Your task to perform on an android device: open device folders in google photos Image 0: 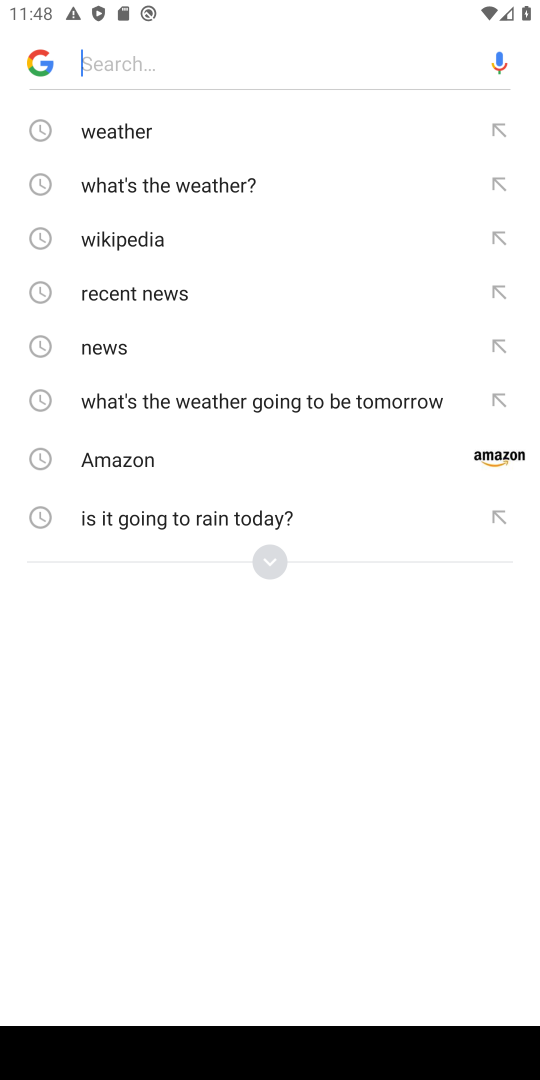
Step 0: press back button
Your task to perform on an android device: open device folders in google photos Image 1: 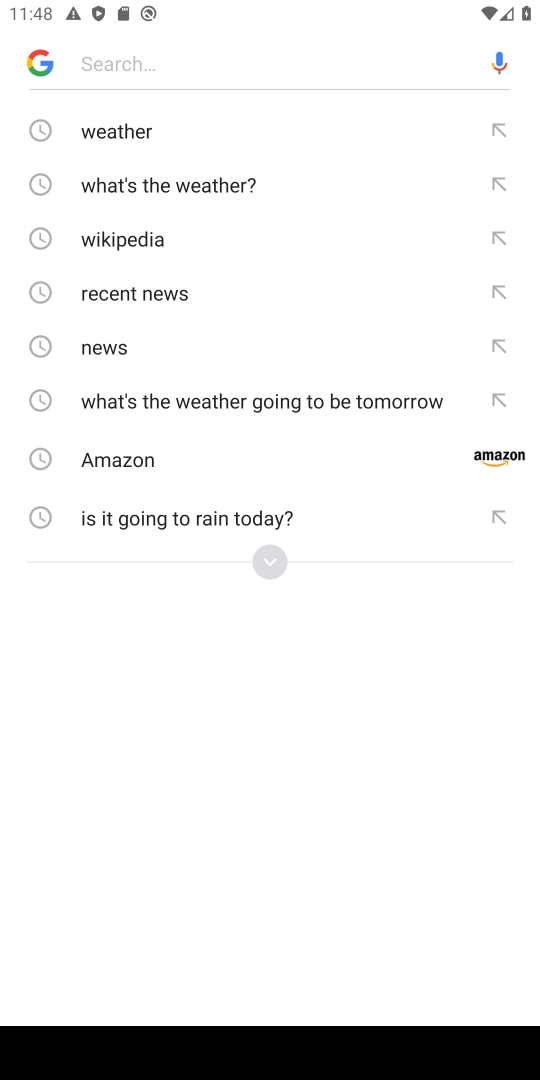
Step 1: press back button
Your task to perform on an android device: open device folders in google photos Image 2: 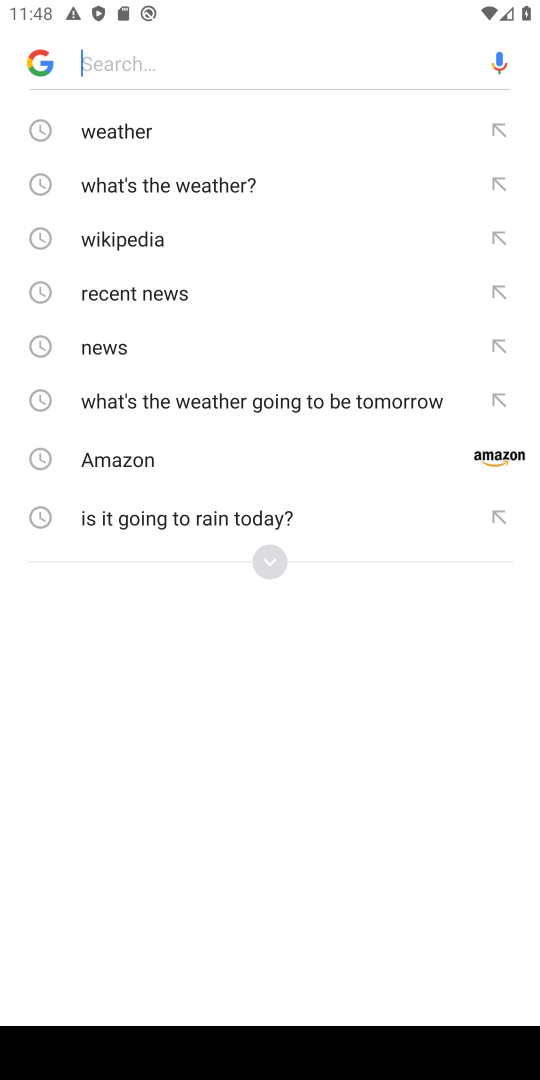
Step 2: press home button
Your task to perform on an android device: open device folders in google photos Image 3: 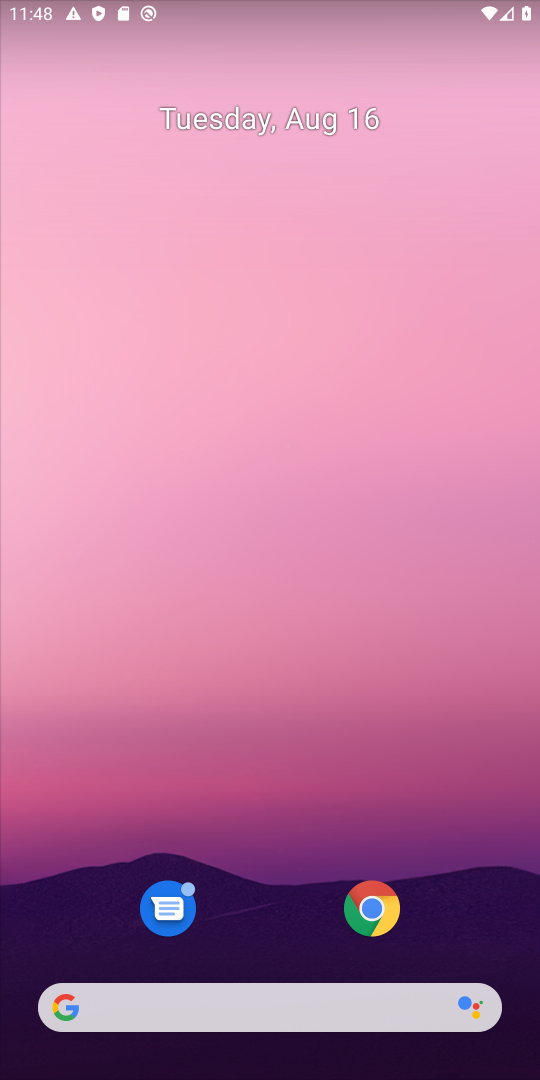
Step 3: press home button
Your task to perform on an android device: open device folders in google photos Image 4: 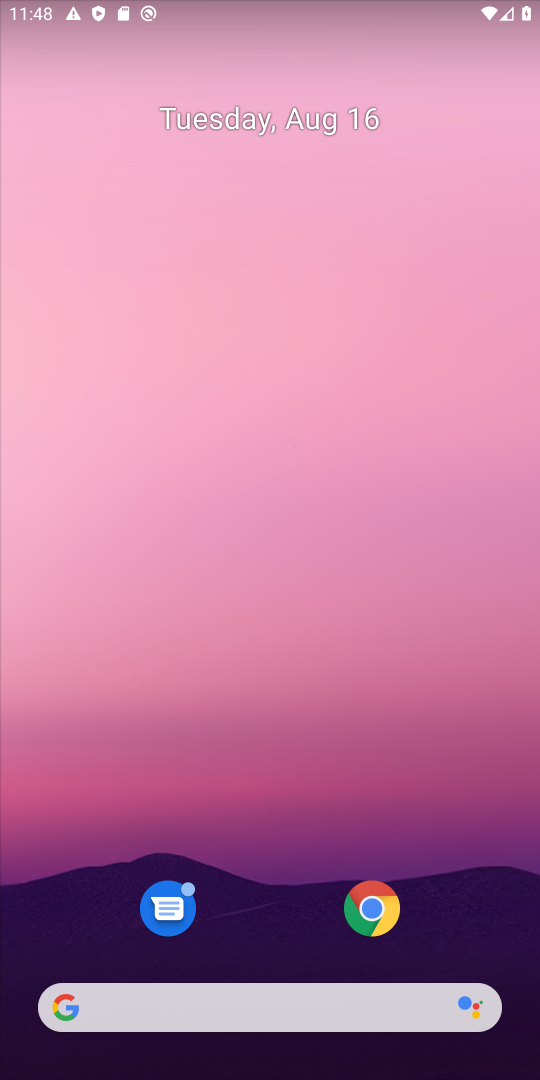
Step 4: click (213, 233)
Your task to perform on an android device: open device folders in google photos Image 5: 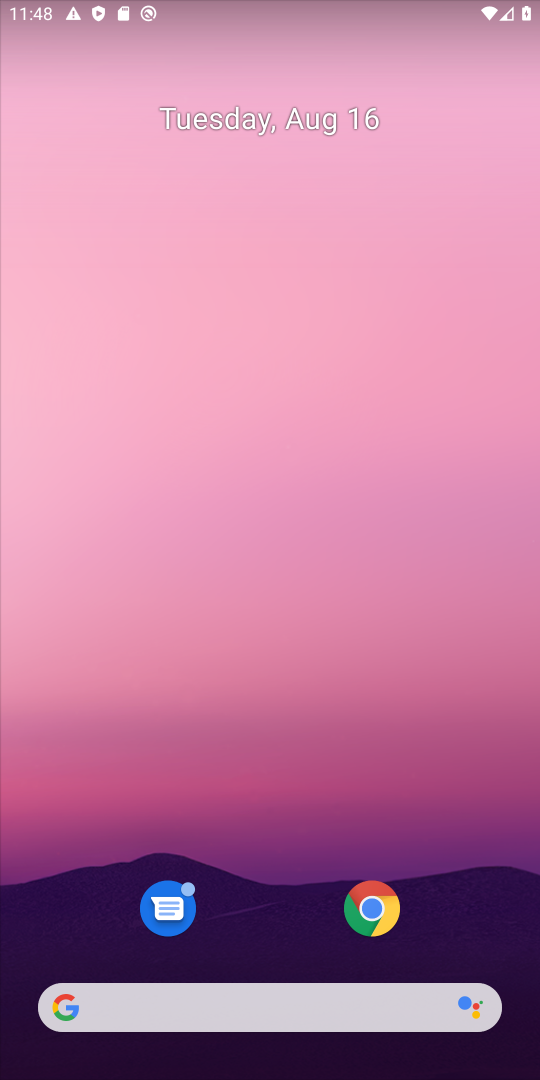
Step 5: drag from (261, 901) to (275, 363)
Your task to perform on an android device: open device folders in google photos Image 6: 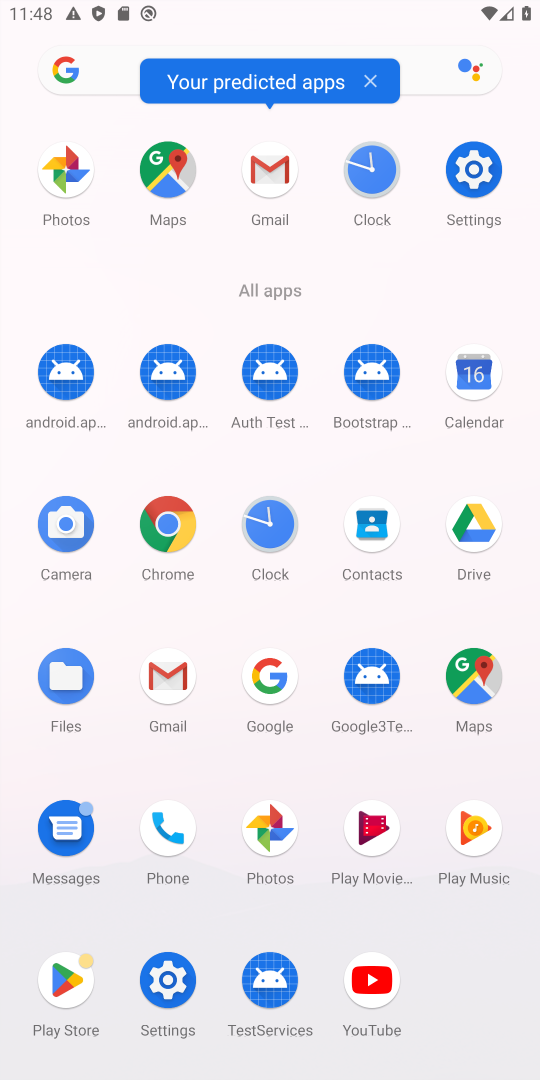
Step 6: click (54, 204)
Your task to perform on an android device: open device folders in google photos Image 7: 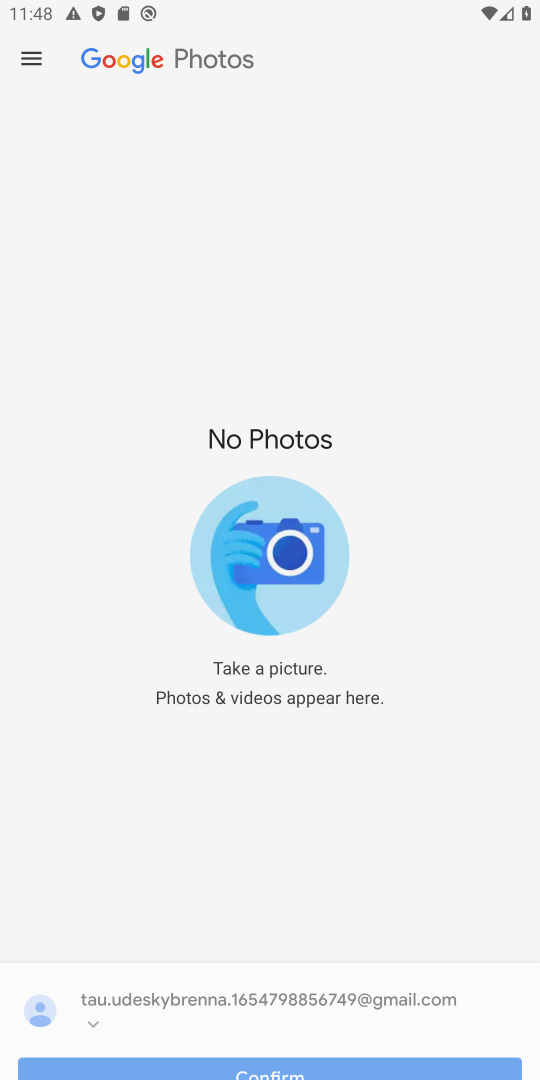
Step 7: click (35, 63)
Your task to perform on an android device: open device folders in google photos Image 8: 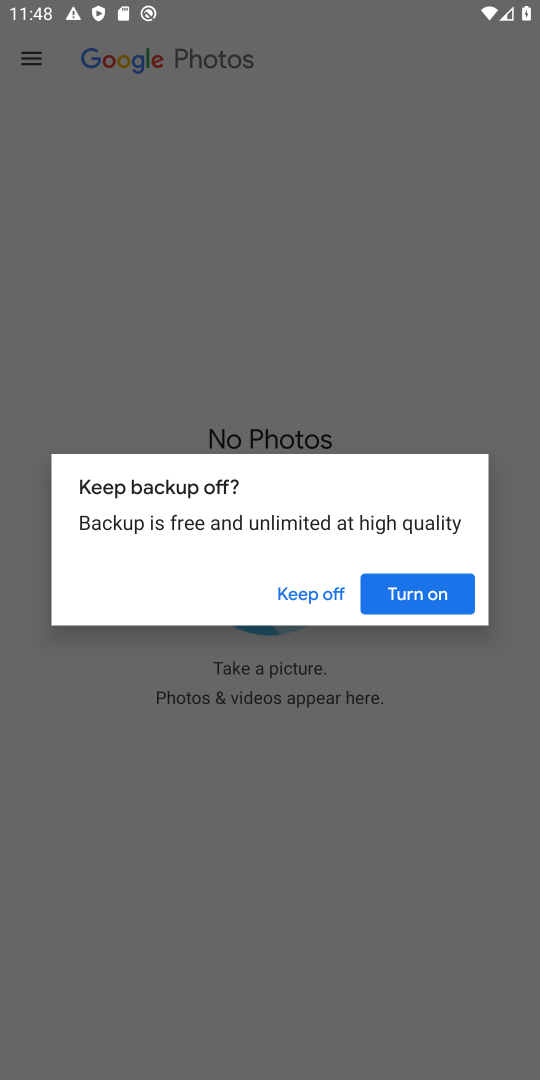
Step 8: click (297, 597)
Your task to perform on an android device: open device folders in google photos Image 9: 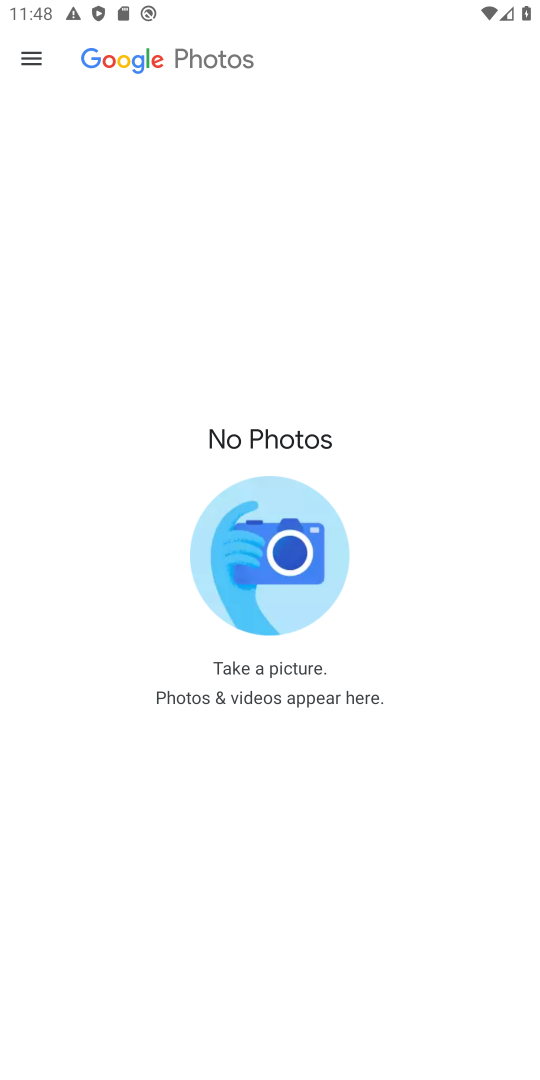
Step 9: click (27, 67)
Your task to perform on an android device: open device folders in google photos Image 10: 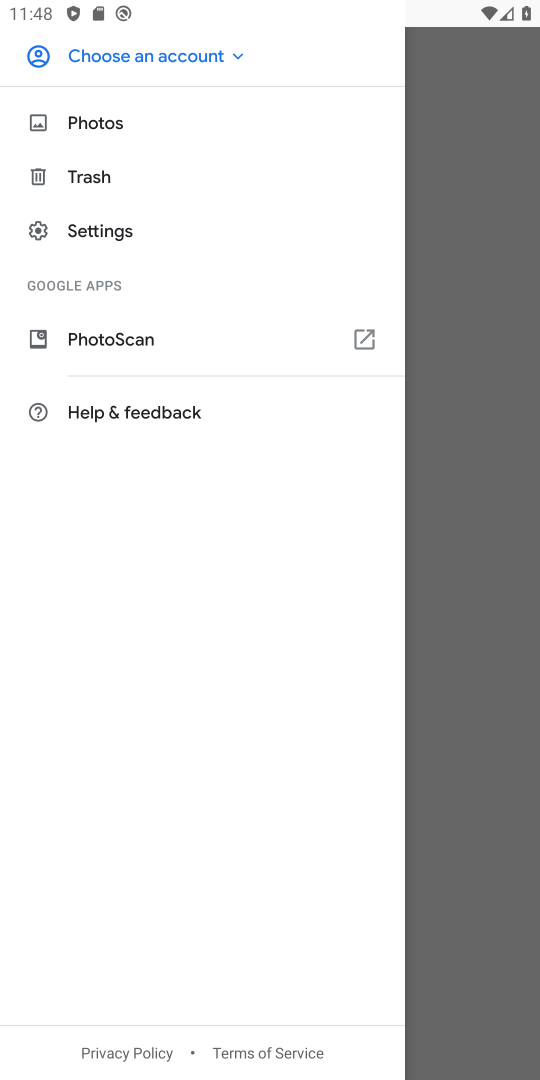
Step 10: click (107, 110)
Your task to perform on an android device: open device folders in google photos Image 11: 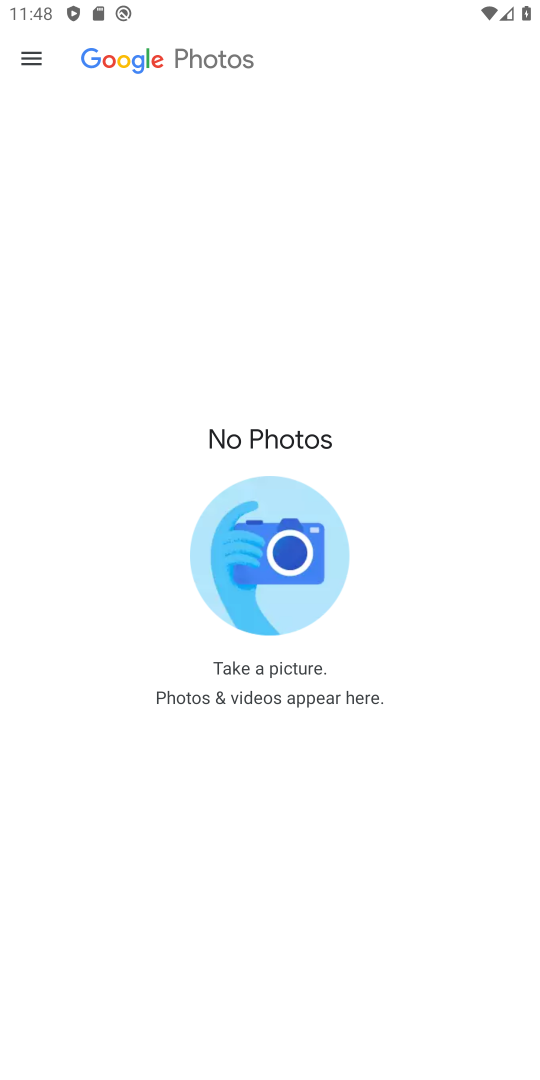
Step 11: click (46, 45)
Your task to perform on an android device: open device folders in google photos Image 12: 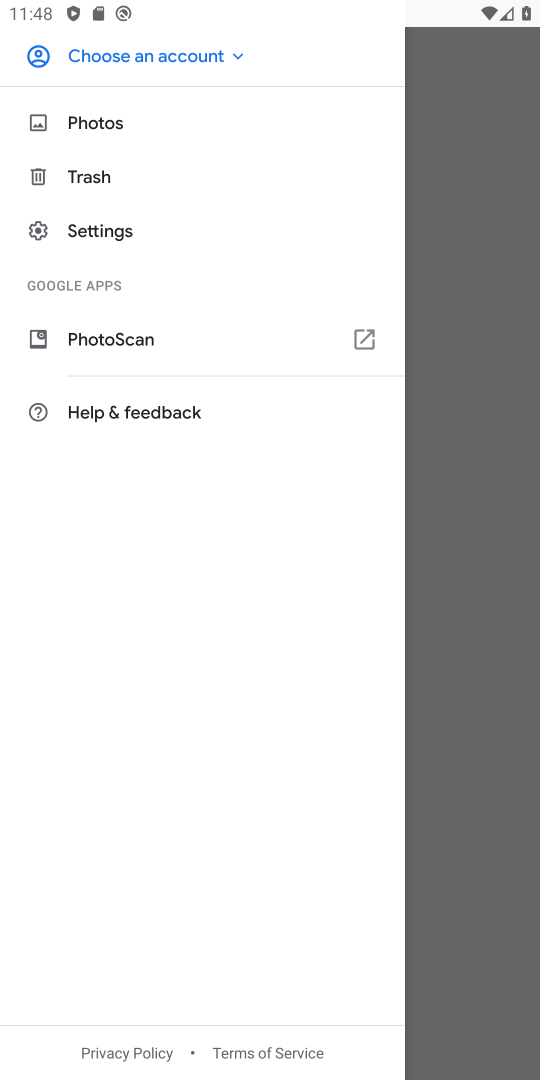
Step 12: task complete